Your task to perform on an android device: What's the weather today? Image 0: 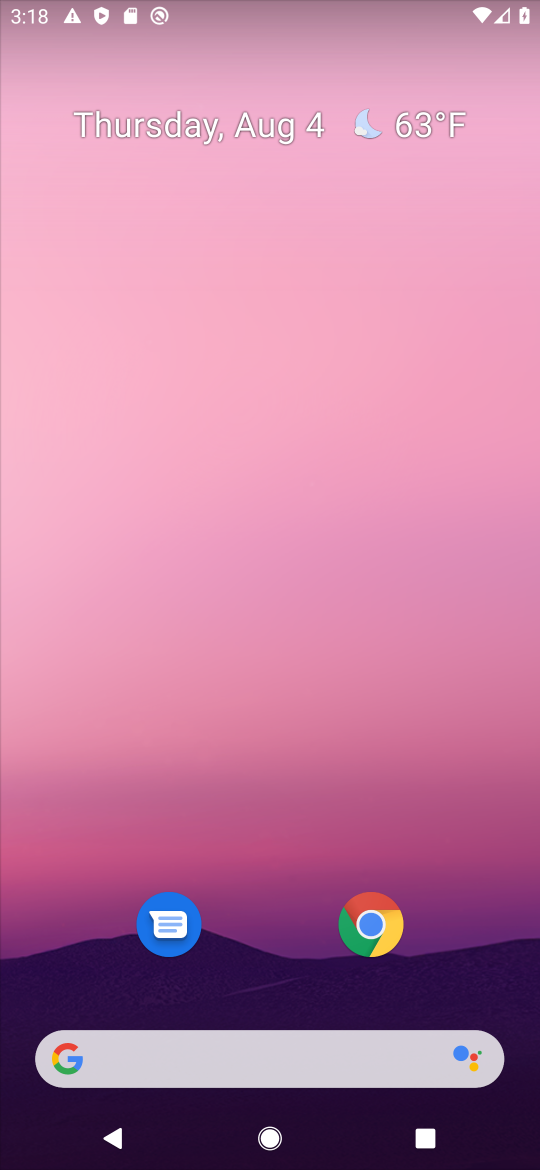
Step 0: press home button
Your task to perform on an android device: What's the weather today? Image 1: 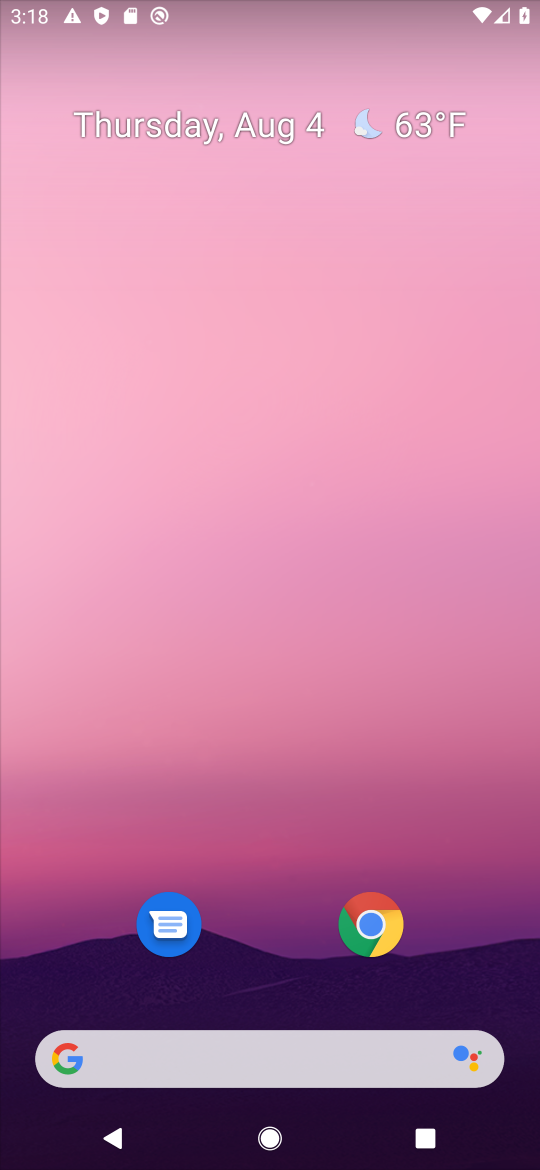
Step 1: click (288, 1093)
Your task to perform on an android device: What's the weather today? Image 2: 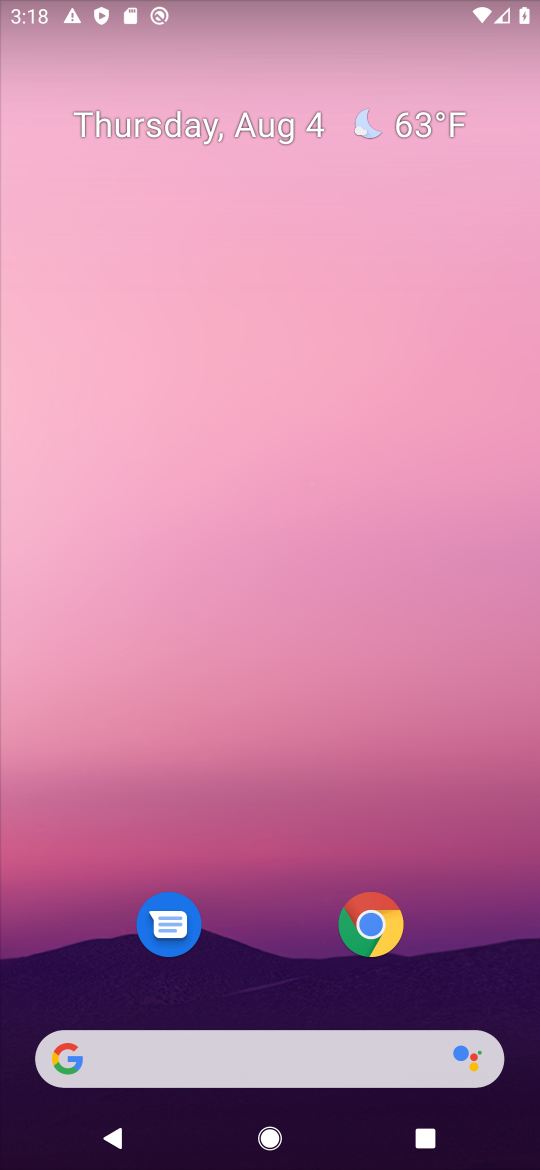
Step 2: click (286, 1072)
Your task to perform on an android device: What's the weather today? Image 3: 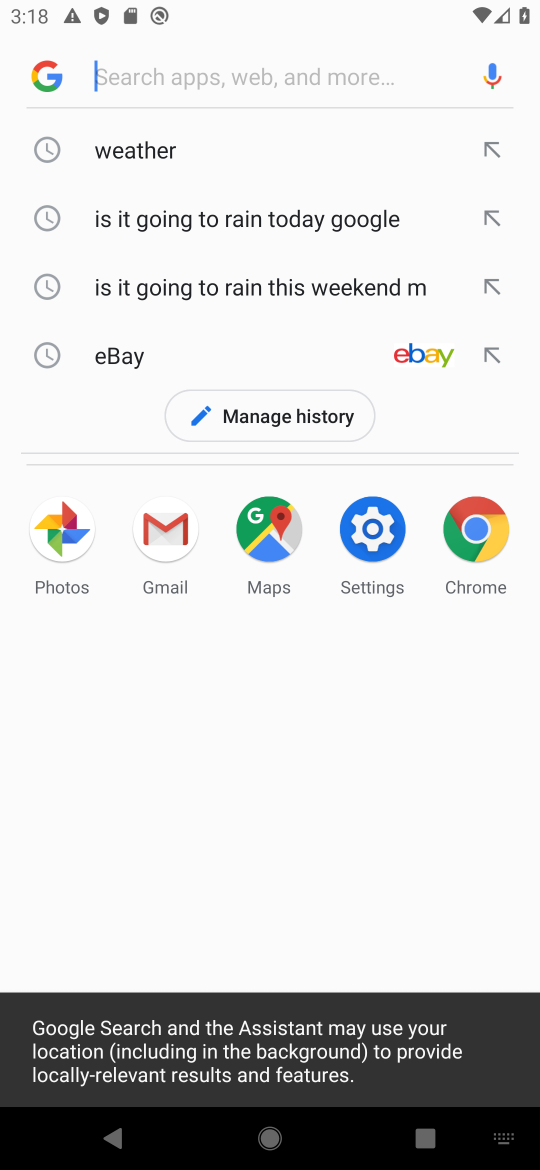
Step 3: click (141, 139)
Your task to perform on an android device: What's the weather today? Image 4: 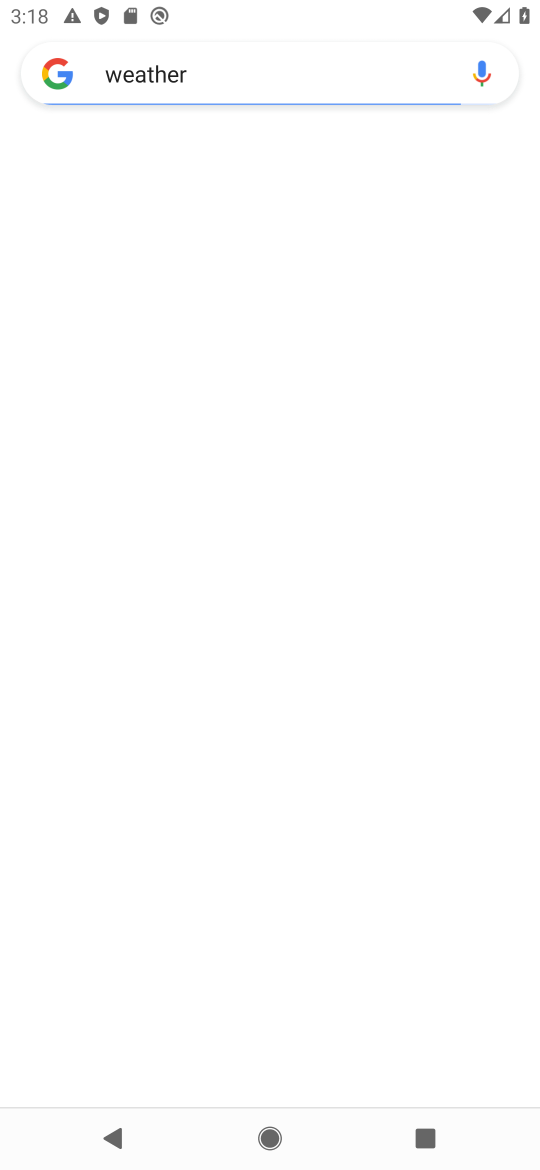
Step 4: click (141, 147)
Your task to perform on an android device: What's the weather today? Image 5: 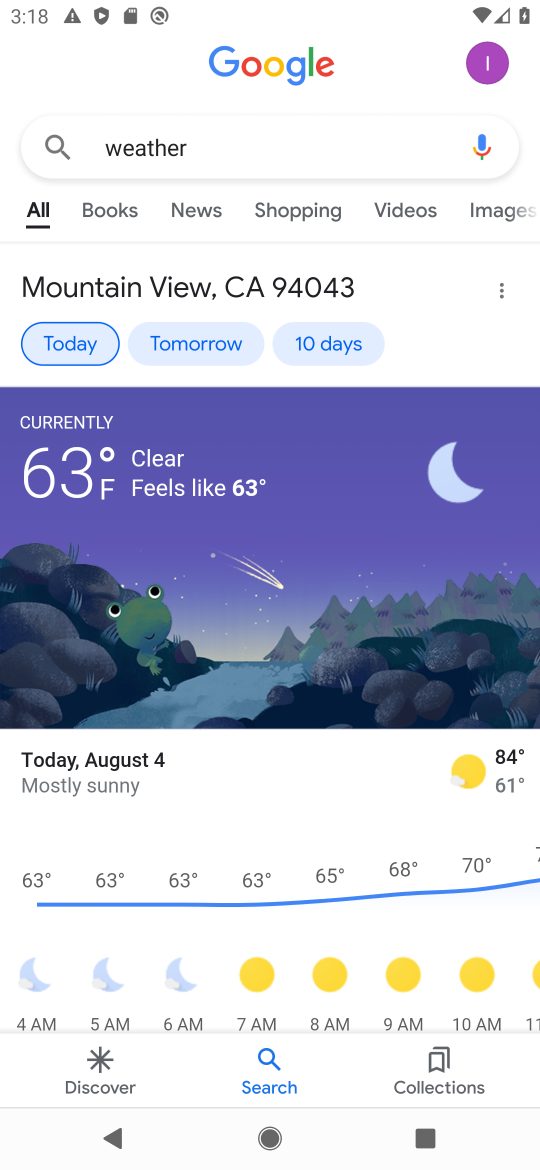
Step 5: task complete